Your task to perform on an android device: Clear the shopping cart on ebay. Search for "usb-a" on ebay, select the first entry, and add it to the cart. Image 0: 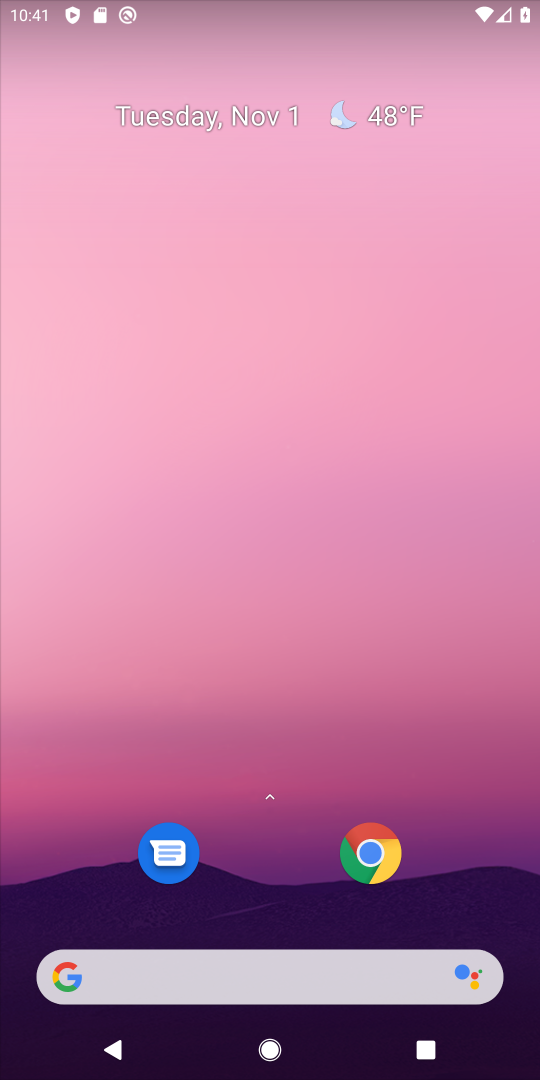
Step 0: drag from (312, 1034) to (374, 76)
Your task to perform on an android device: Clear the shopping cart on ebay. Search for "usb-a" on ebay, select the first entry, and add it to the cart. Image 1: 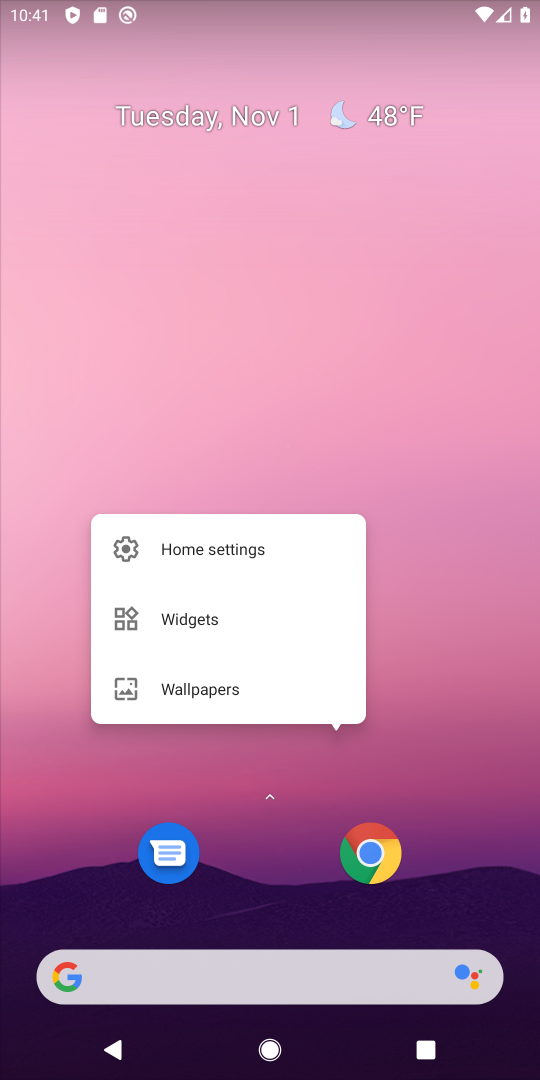
Step 1: click (365, 380)
Your task to perform on an android device: Clear the shopping cart on ebay. Search for "usb-a" on ebay, select the first entry, and add it to the cart. Image 2: 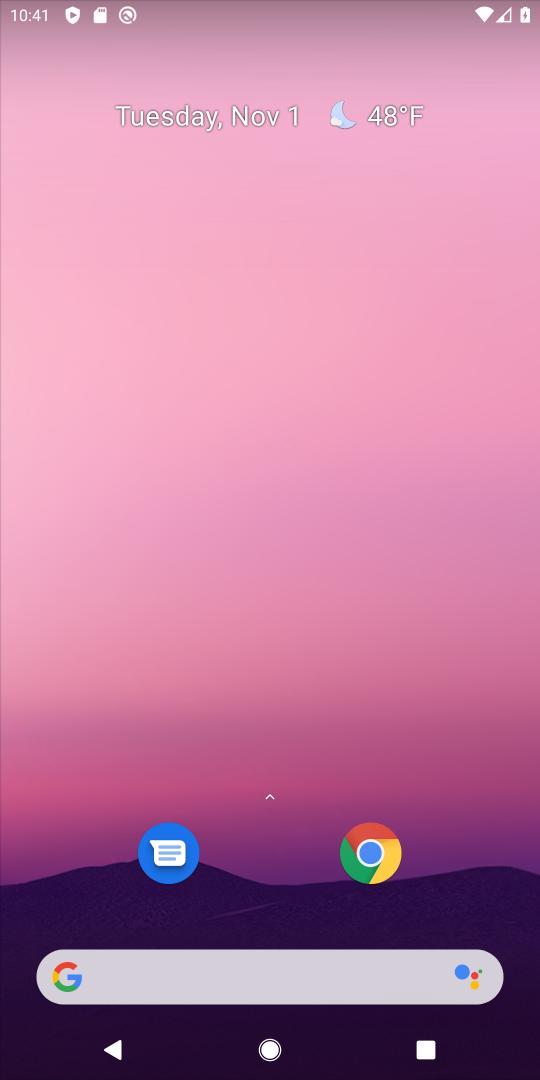
Step 2: drag from (361, 1029) to (380, 218)
Your task to perform on an android device: Clear the shopping cart on ebay. Search for "usb-a" on ebay, select the first entry, and add it to the cart. Image 3: 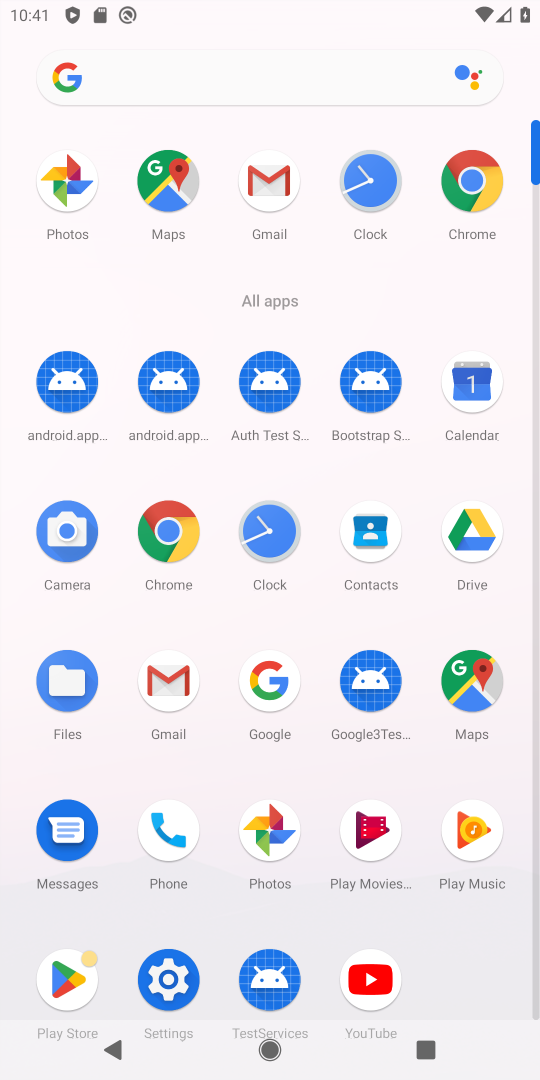
Step 3: click (161, 530)
Your task to perform on an android device: Clear the shopping cart on ebay. Search for "usb-a" on ebay, select the first entry, and add it to the cart. Image 4: 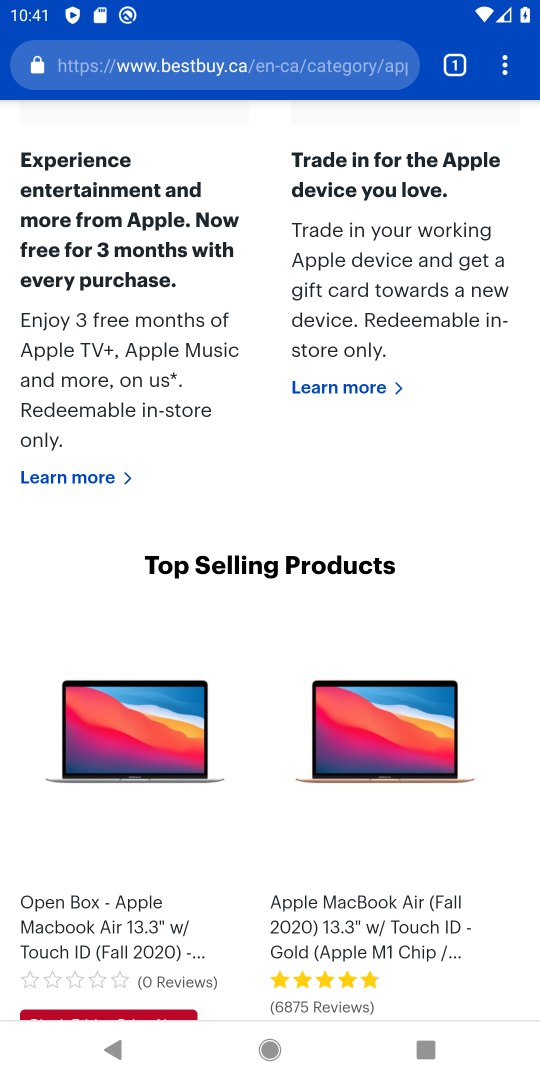
Step 4: click (235, 60)
Your task to perform on an android device: Clear the shopping cart on ebay. Search for "usb-a" on ebay, select the first entry, and add it to the cart. Image 5: 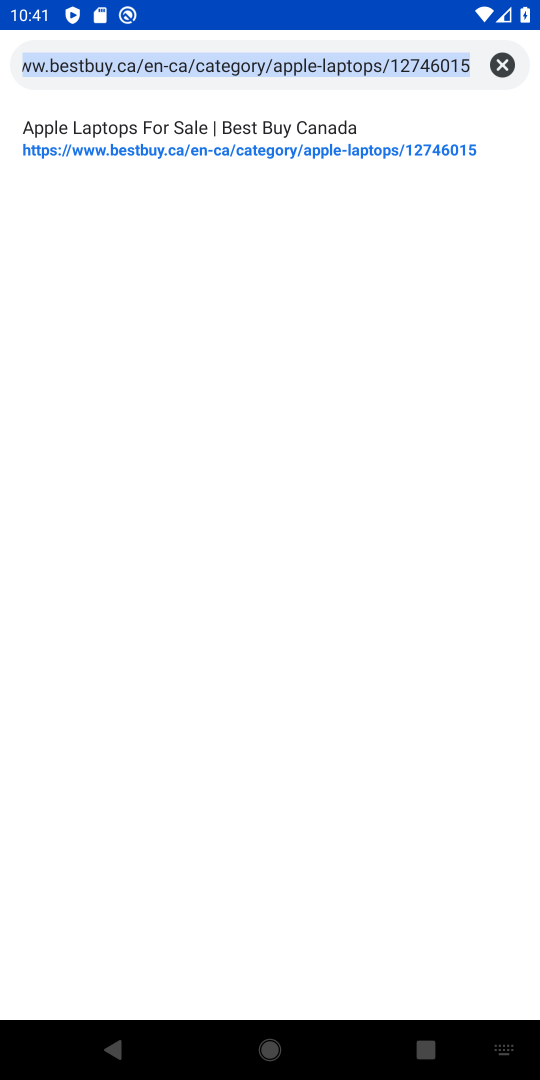
Step 5: click (502, 66)
Your task to perform on an android device: Clear the shopping cart on ebay. Search for "usb-a" on ebay, select the first entry, and add it to the cart. Image 6: 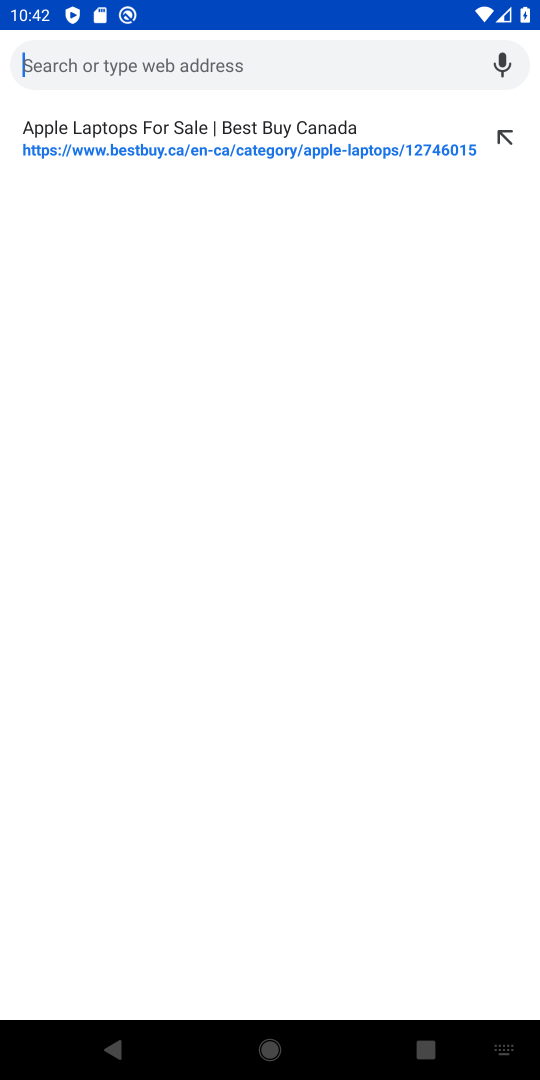
Step 6: type " ebay."
Your task to perform on an android device: Clear the shopping cart on ebay. Search for "usb-a" on ebay, select the first entry, and add it to the cart. Image 7: 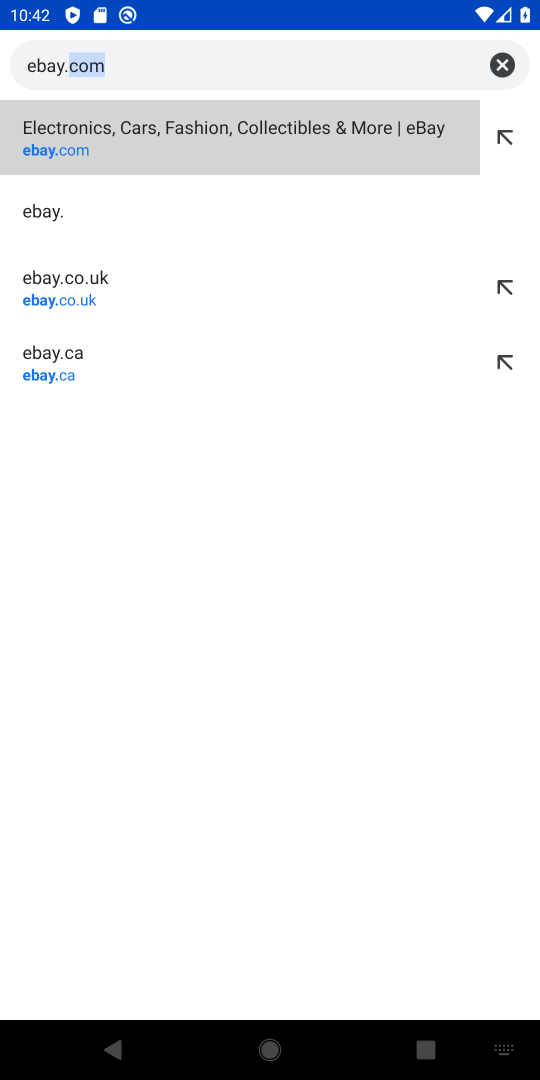
Step 7: click (49, 153)
Your task to perform on an android device: Clear the shopping cart on ebay. Search for "usb-a" on ebay, select the first entry, and add it to the cart. Image 8: 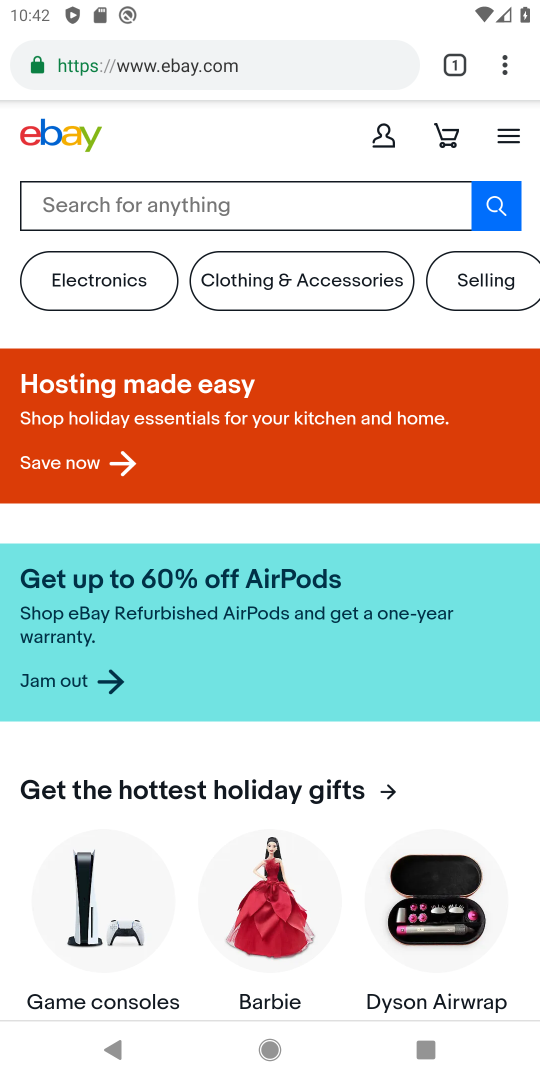
Step 8: click (220, 202)
Your task to perform on an android device: Clear the shopping cart on ebay. Search for "usb-a" on ebay, select the first entry, and add it to the cart. Image 9: 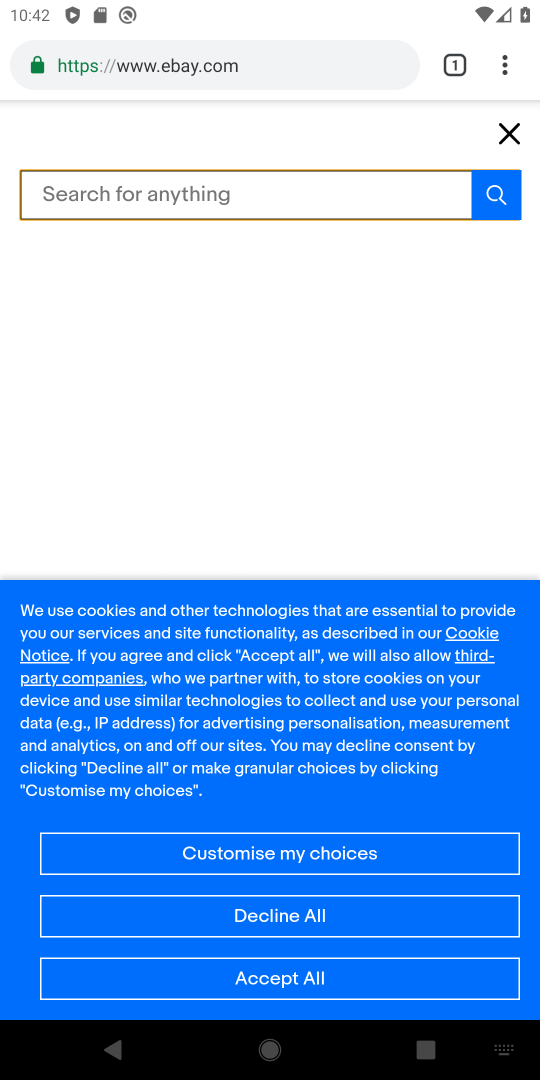
Step 9: type "usb-a"
Your task to perform on an android device: Clear the shopping cart on ebay. Search for "usb-a" on ebay, select the first entry, and add it to the cart. Image 10: 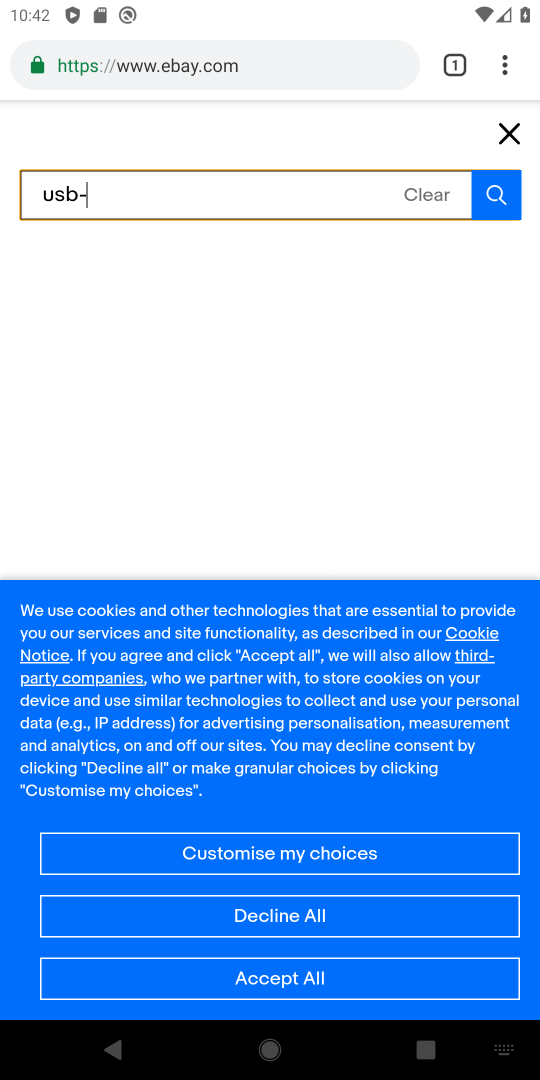
Step 10: type ""
Your task to perform on an android device: Clear the shopping cart on ebay. Search for "usb-a" on ebay, select the first entry, and add it to the cart. Image 11: 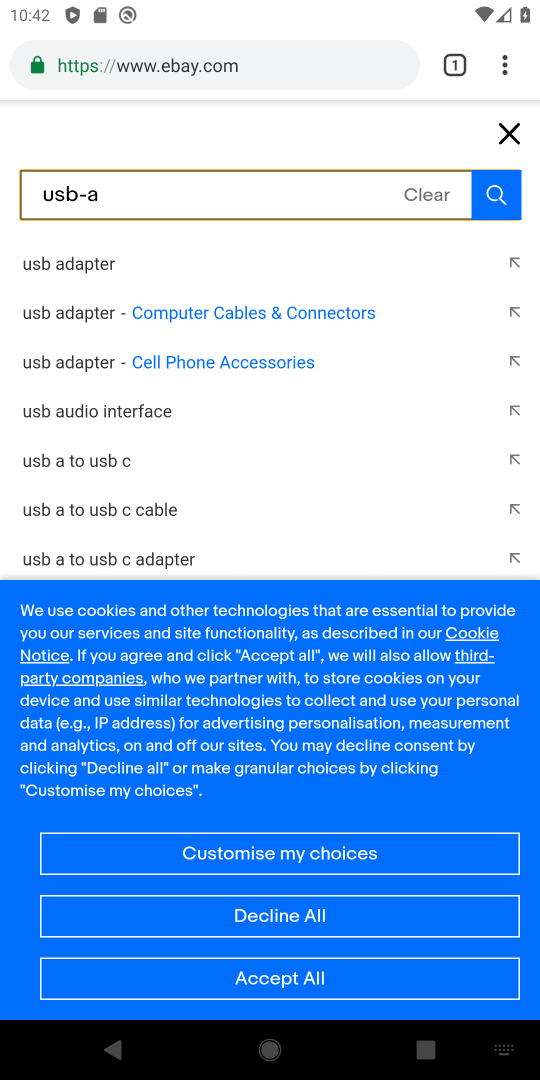
Step 11: click (493, 186)
Your task to perform on an android device: Clear the shopping cart on ebay. Search for "usb-a" on ebay, select the first entry, and add it to the cart. Image 12: 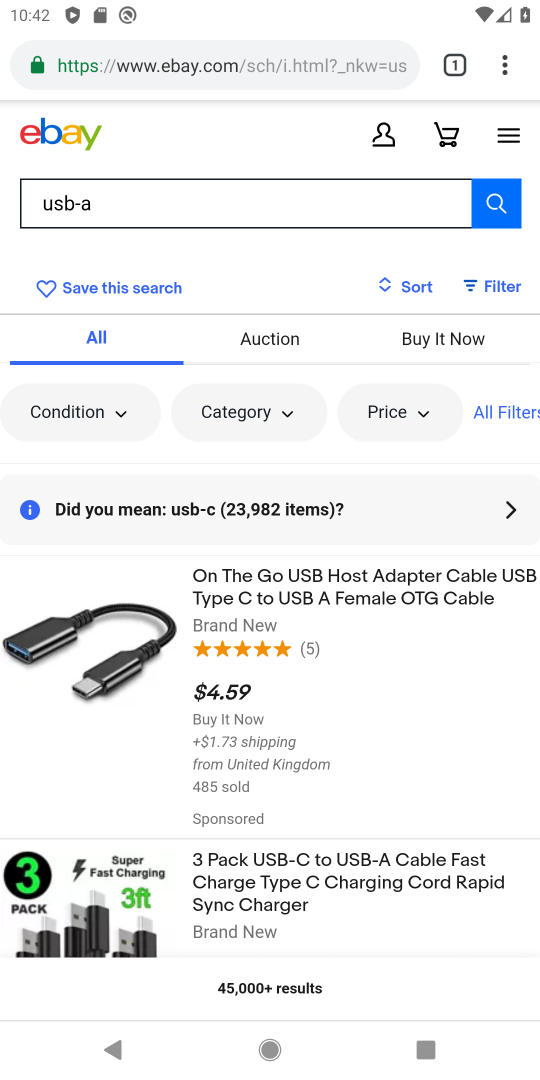
Step 12: click (229, 652)
Your task to perform on an android device: Clear the shopping cart on ebay. Search for "usb-a" on ebay, select the first entry, and add it to the cart. Image 13: 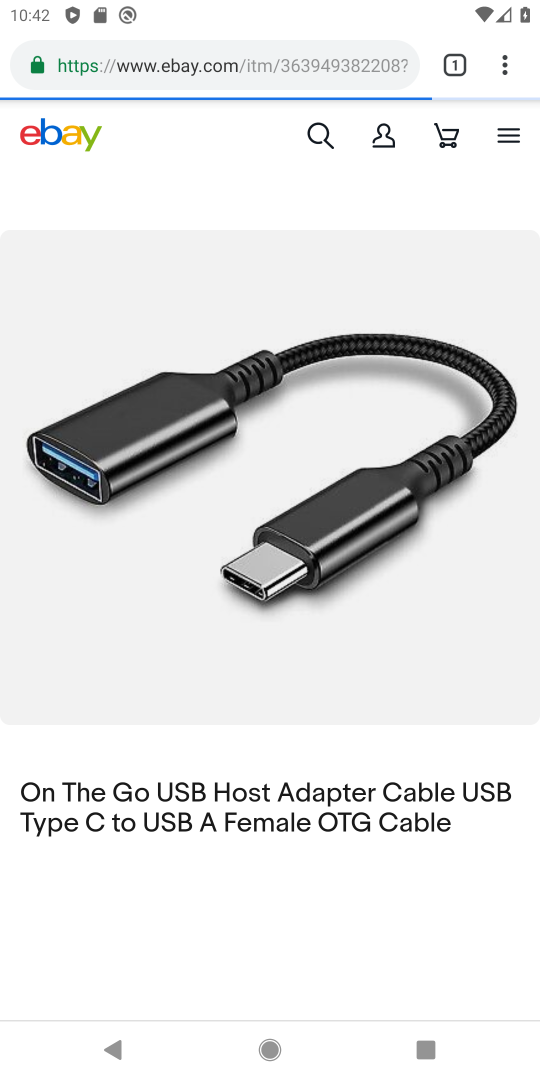
Step 13: drag from (304, 898) to (387, 243)
Your task to perform on an android device: Clear the shopping cart on ebay. Search for "usb-a" on ebay, select the first entry, and add it to the cart. Image 14: 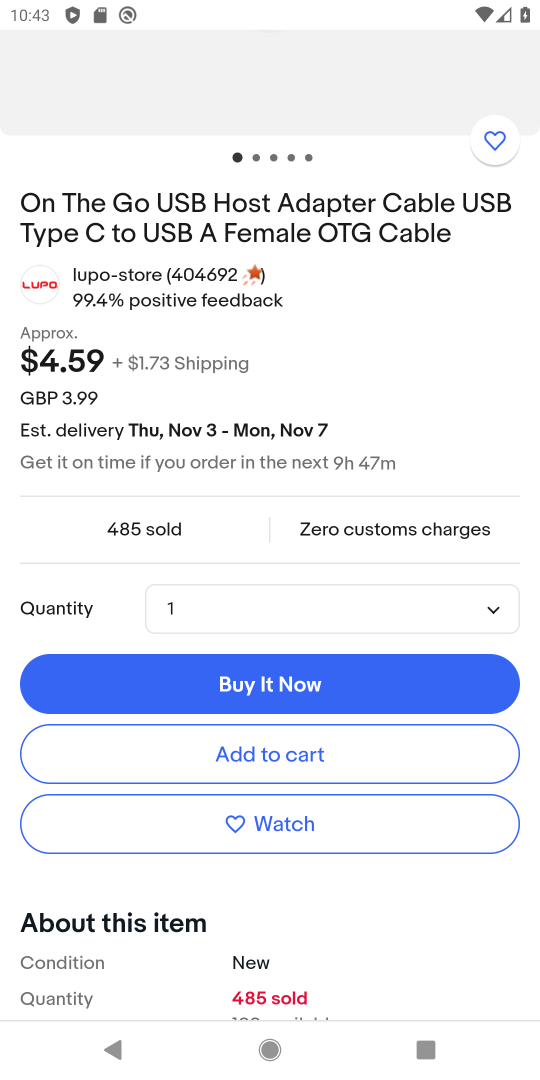
Step 14: drag from (410, 947) to (384, 578)
Your task to perform on an android device: Clear the shopping cart on ebay. Search for "usb-a" on ebay, select the first entry, and add it to the cart. Image 15: 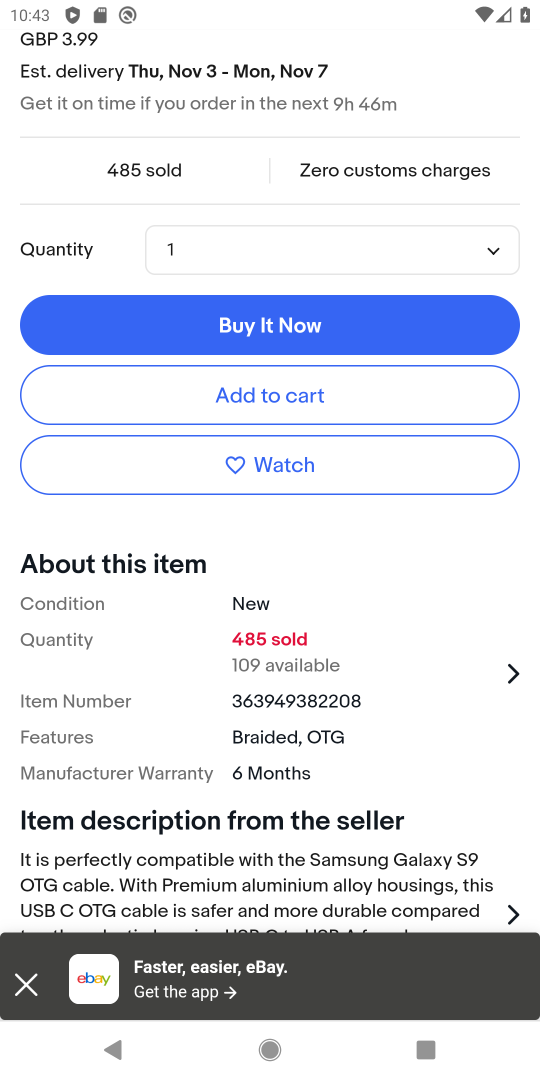
Step 15: click (244, 393)
Your task to perform on an android device: Clear the shopping cart on ebay. Search for "usb-a" on ebay, select the first entry, and add it to the cart. Image 16: 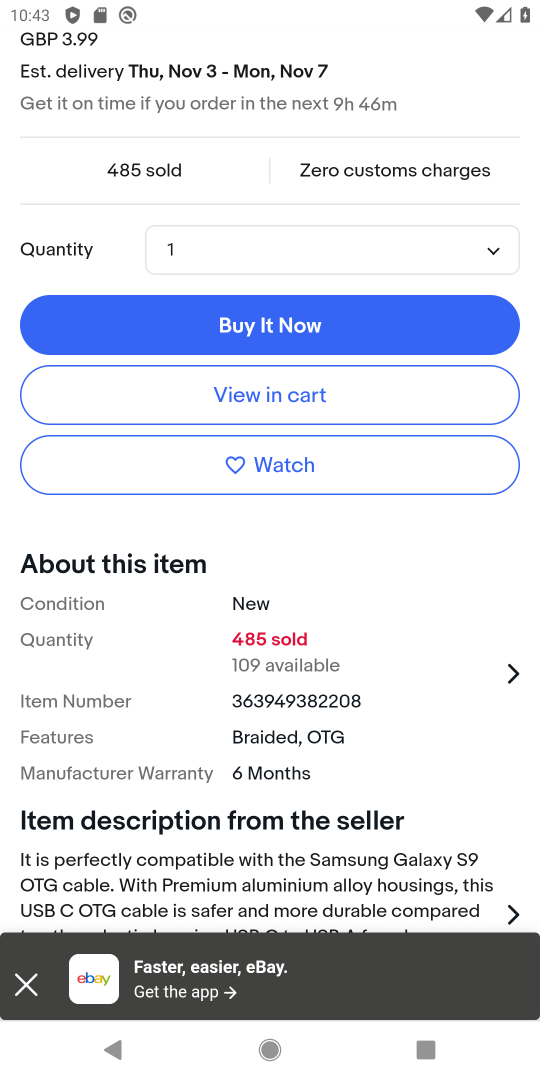
Step 16: task complete